Your task to perform on an android device: open app "Life360: Find Family & Friends" (install if not already installed) and go to login screen Image 0: 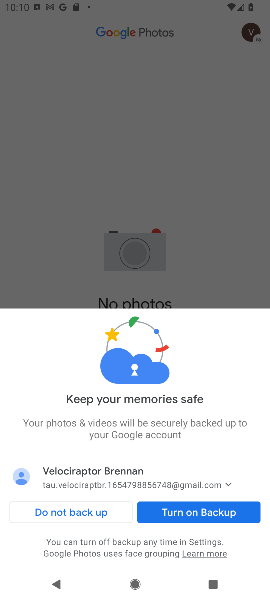
Step 0: press home button
Your task to perform on an android device: open app "Life360: Find Family & Friends" (install if not already installed) and go to login screen Image 1: 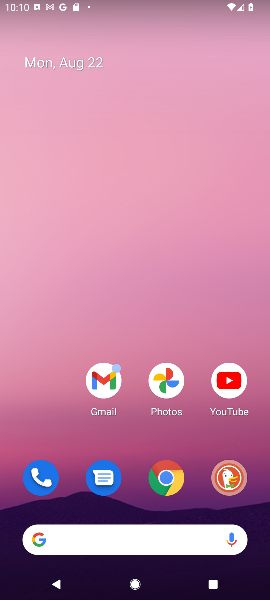
Step 1: drag from (124, 512) to (177, 67)
Your task to perform on an android device: open app "Life360: Find Family & Friends" (install if not already installed) and go to login screen Image 2: 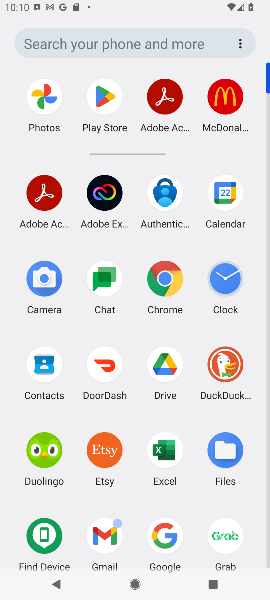
Step 2: click (110, 378)
Your task to perform on an android device: open app "Life360: Find Family & Friends" (install if not already installed) and go to login screen Image 3: 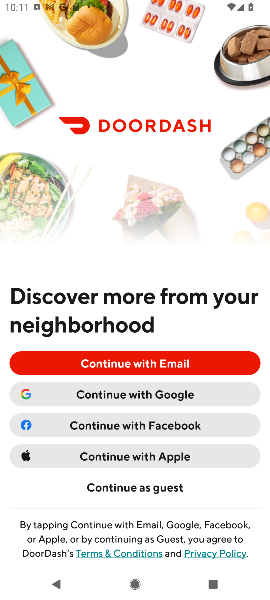
Step 3: press home button
Your task to perform on an android device: open app "Life360: Find Family & Friends" (install if not already installed) and go to login screen Image 4: 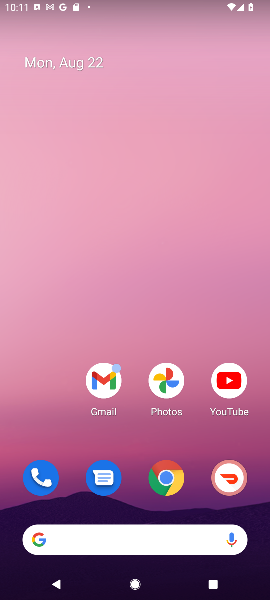
Step 4: drag from (137, 510) to (164, 6)
Your task to perform on an android device: open app "Life360: Find Family & Friends" (install if not already installed) and go to login screen Image 5: 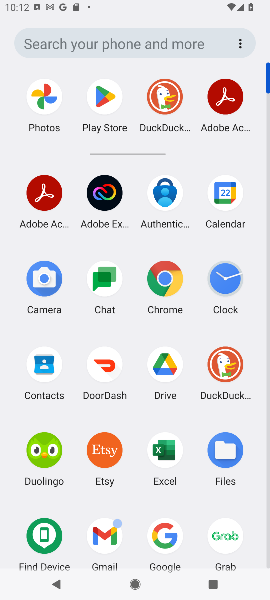
Step 5: click (98, 107)
Your task to perform on an android device: open app "Life360: Find Family & Friends" (install if not already installed) and go to login screen Image 6: 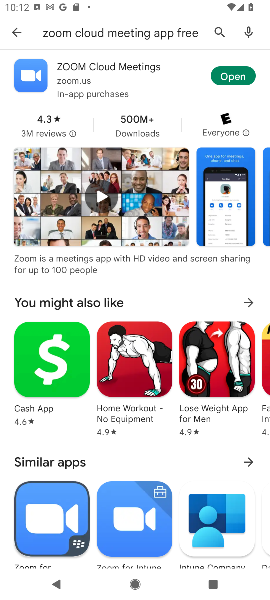
Step 6: click (216, 43)
Your task to perform on an android device: open app "Life360: Find Family & Friends" (install if not already installed) and go to login screen Image 7: 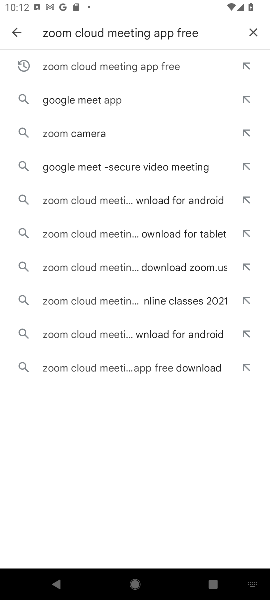
Step 7: click (253, 37)
Your task to perform on an android device: open app "Life360: Find Family & Friends" (install if not already installed) and go to login screen Image 8: 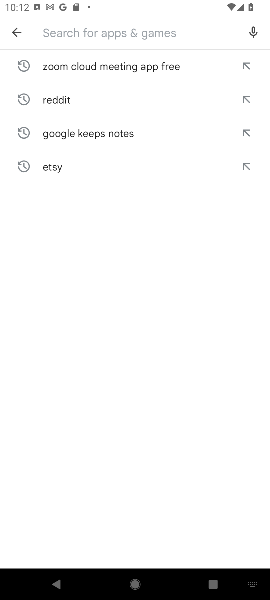
Step 8: type "life 360"
Your task to perform on an android device: open app "Life360: Find Family & Friends" (install if not already installed) and go to login screen Image 9: 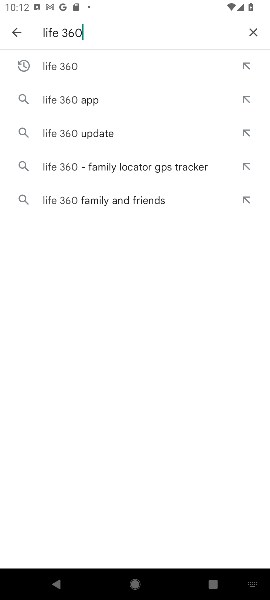
Step 9: click (80, 68)
Your task to perform on an android device: open app "Life360: Find Family & Friends" (install if not already installed) and go to login screen Image 10: 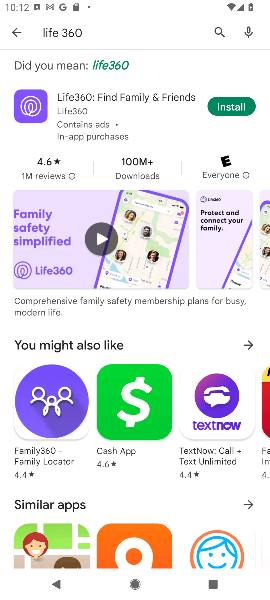
Step 10: click (234, 114)
Your task to perform on an android device: open app "Life360: Find Family & Friends" (install if not already installed) and go to login screen Image 11: 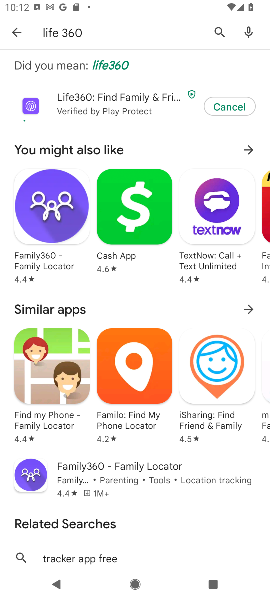
Step 11: task complete